Your task to perform on an android device: turn off notifications in google photos Image 0: 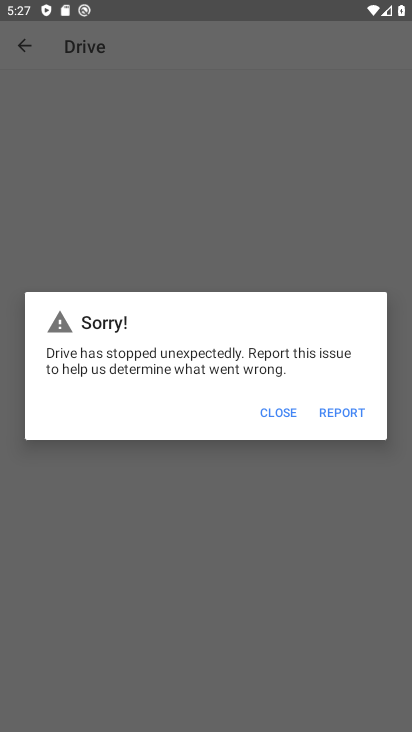
Step 0: press home button
Your task to perform on an android device: turn off notifications in google photos Image 1: 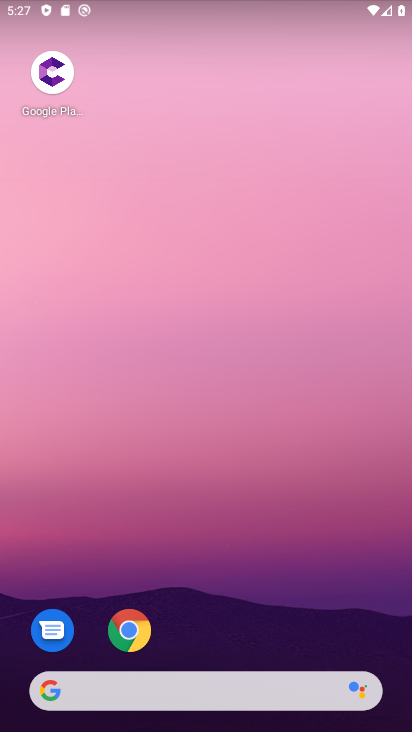
Step 1: drag from (258, 645) to (268, 192)
Your task to perform on an android device: turn off notifications in google photos Image 2: 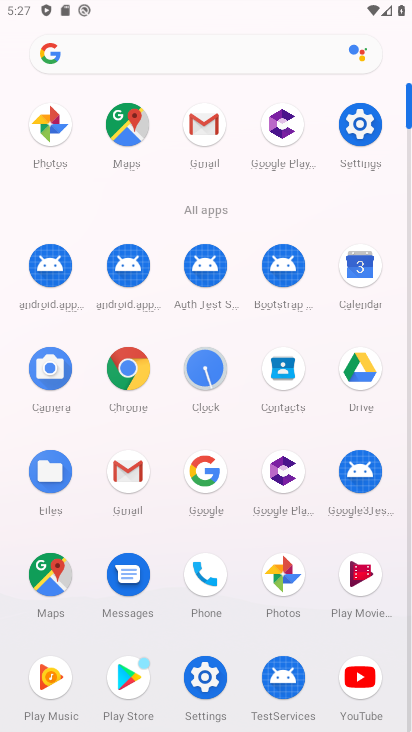
Step 2: click (38, 118)
Your task to perform on an android device: turn off notifications in google photos Image 3: 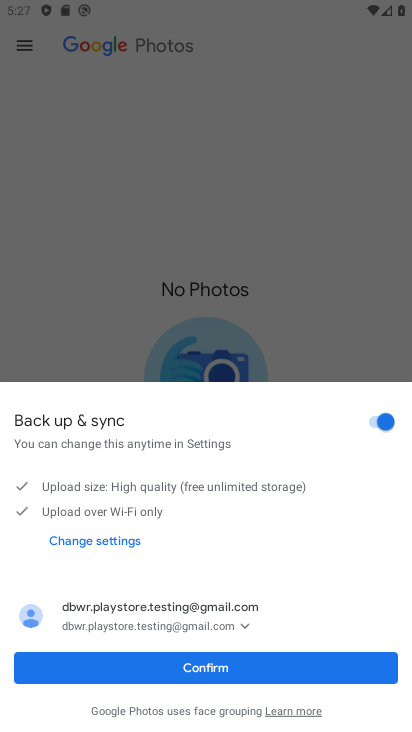
Step 3: click (256, 678)
Your task to perform on an android device: turn off notifications in google photos Image 4: 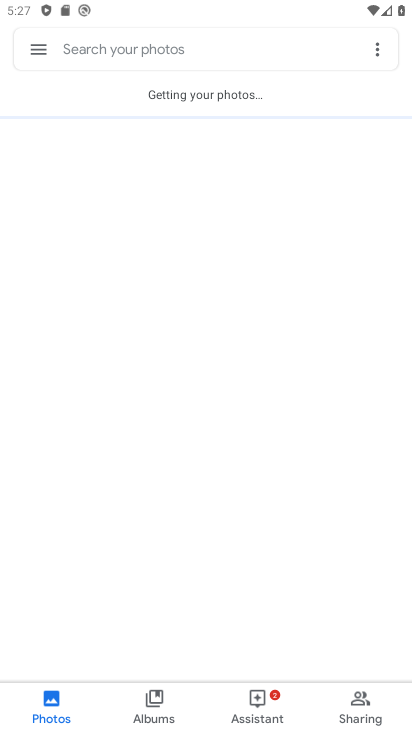
Step 4: click (175, 654)
Your task to perform on an android device: turn off notifications in google photos Image 5: 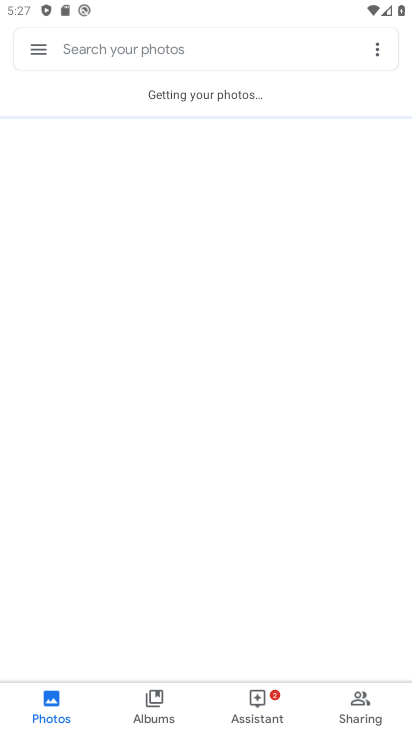
Step 5: click (56, 64)
Your task to perform on an android device: turn off notifications in google photos Image 6: 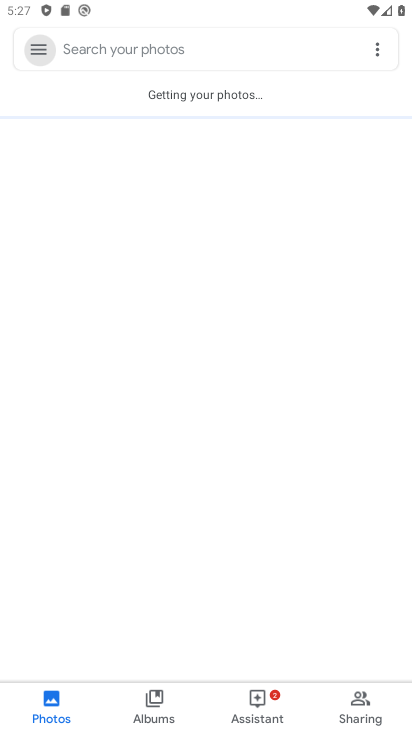
Step 6: click (42, 52)
Your task to perform on an android device: turn off notifications in google photos Image 7: 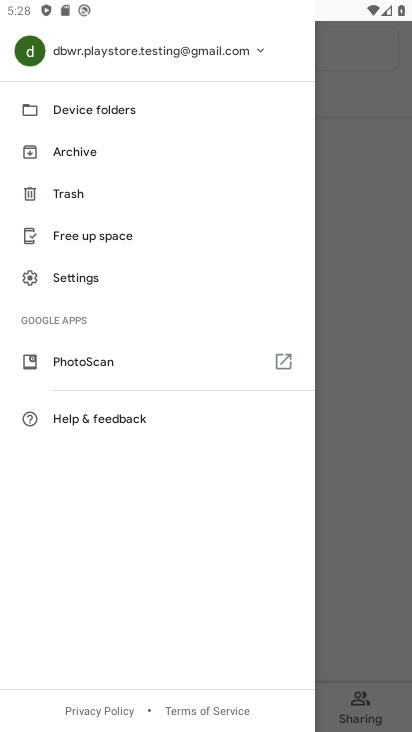
Step 7: click (93, 286)
Your task to perform on an android device: turn off notifications in google photos Image 8: 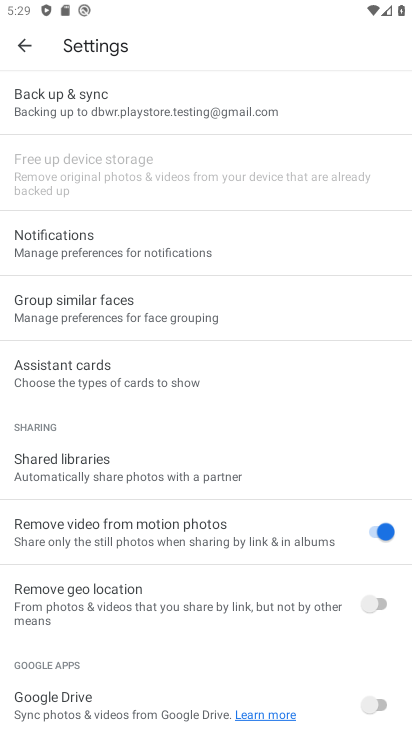
Step 8: click (58, 274)
Your task to perform on an android device: turn off notifications in google photos Image 9: 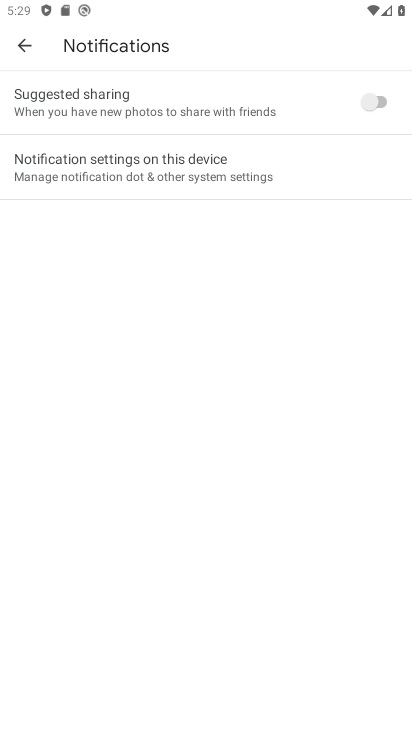
Step 9: click (81, 162)
Your task to perform on an android device: turn off notifications in google photos Image 10: 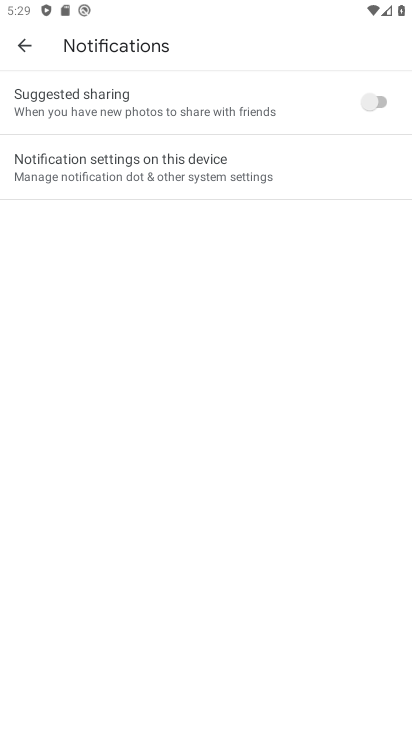
Step 10: click (81, 162)
Your task to perform on an android device: turn off notifications in google photos Image 11: 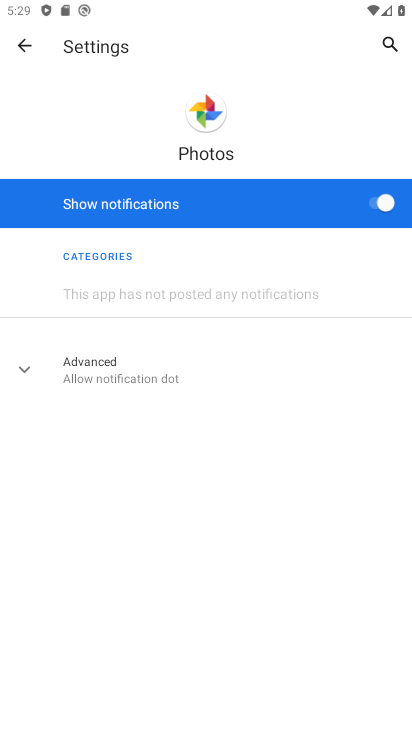
Step 11: click (381, 202)
Your task to perform on an android device: turn off notifications in google photos Image 12: 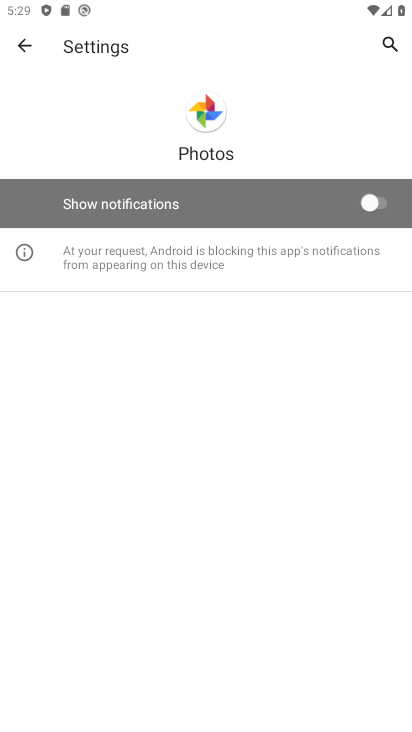
Step 12: task complete